Your task to perform on an android device: Go to Maps Image 0: 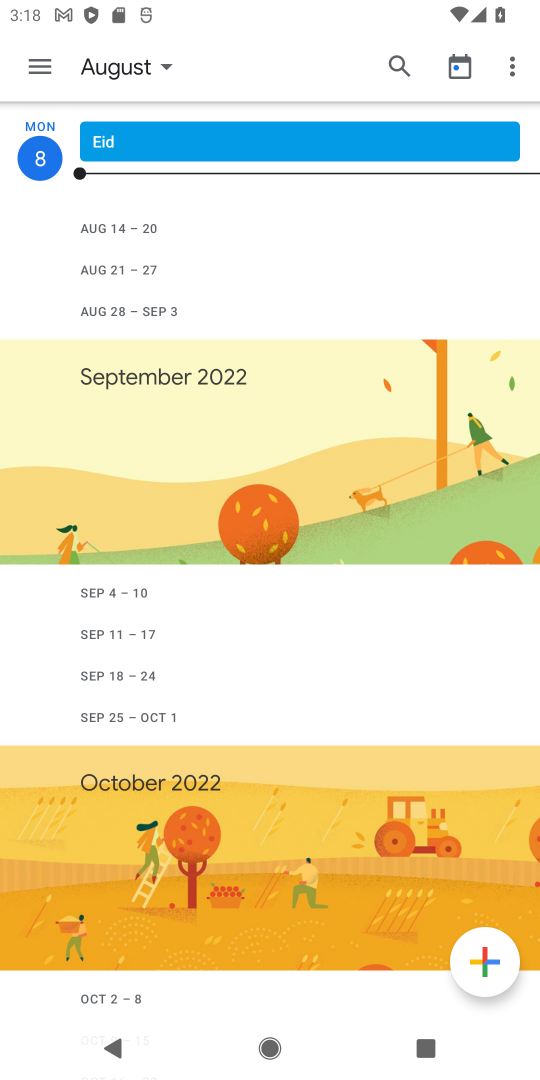
Step 0: press home button
Your task to perform on an android device: Go to Maps Image 1: 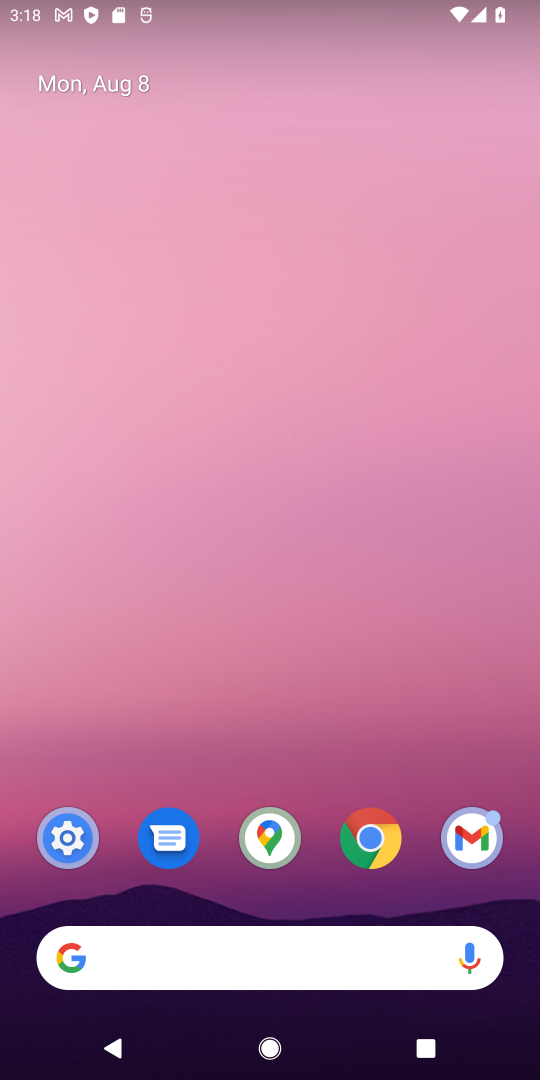
Step 1: click (266, 830)
Your task to perform on an android device: Go to Maps Image 2: 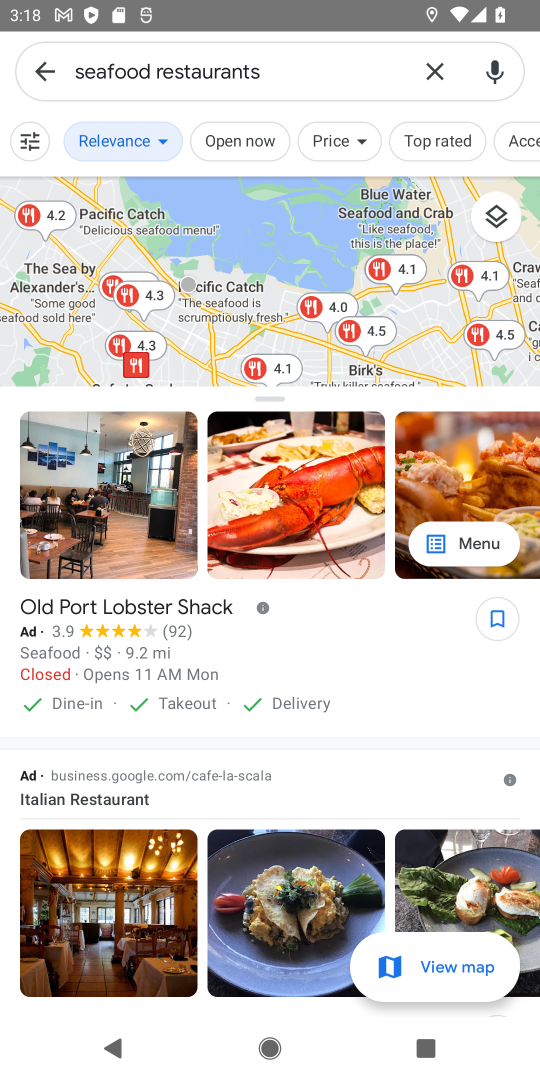
Step 2: task complete